Your task to perform on an android device: Open notification settings Image 0: 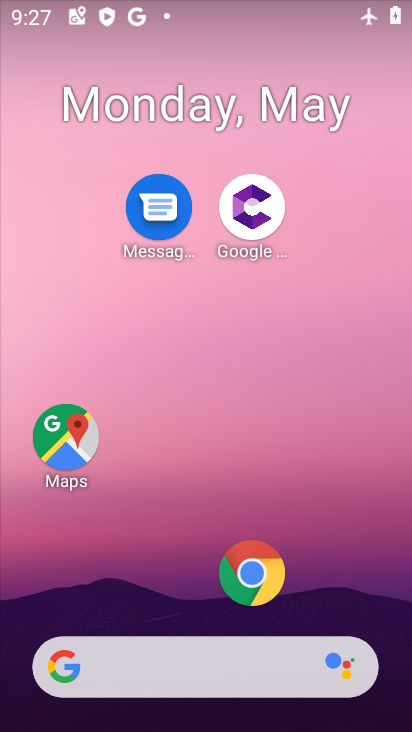
Step 0: drag from (211, 692) to (250, 143)
Your task to perform on an android device: Open notification settings Image 1: 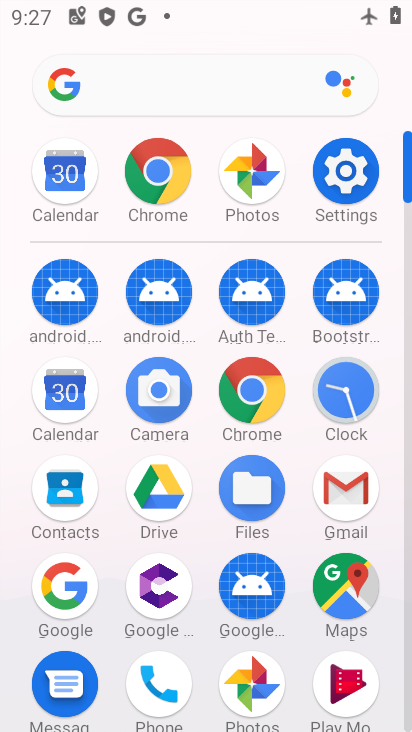
Step 1: click (364, 184)
Your task to perform on an android device: Open notification settings Image 2: 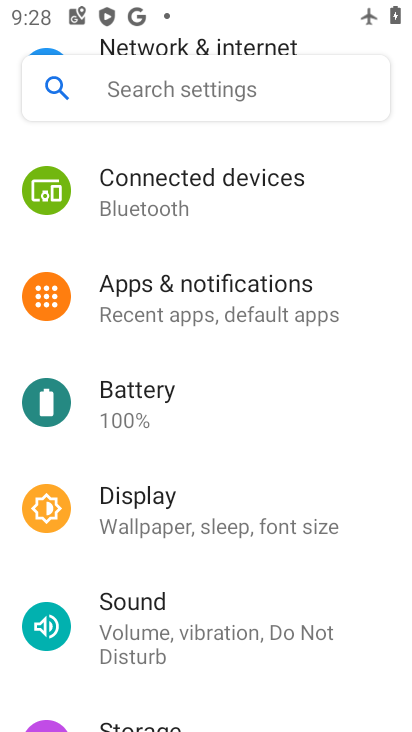
Step 2: click (212, 341)
Your task to perform on an android device: Open notification settings Image 3: 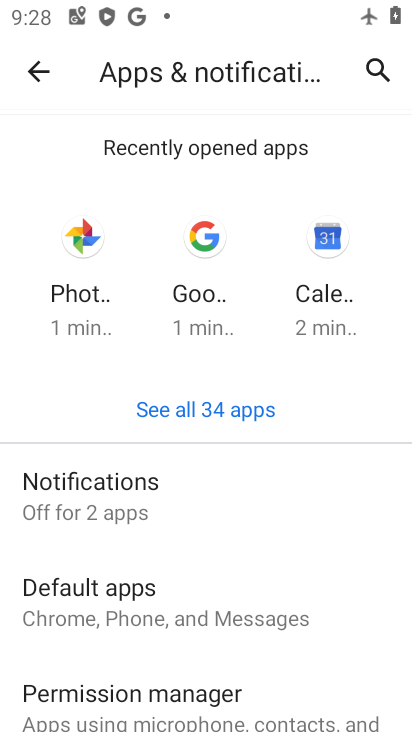
Step 3: click (159, 491)
Your task to perform on an android device: Open notification settings Image 4: 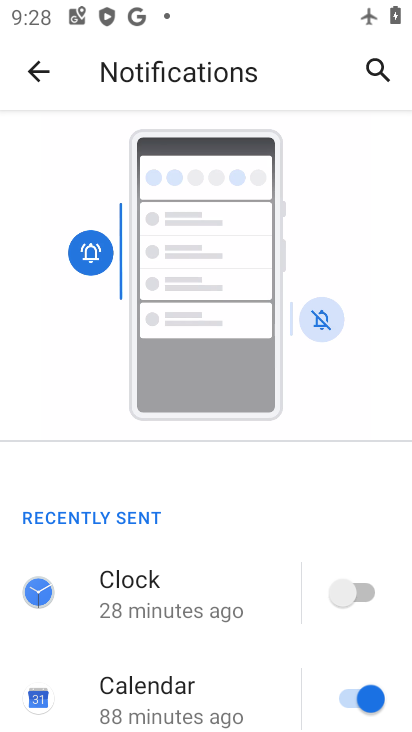
Step 4: task complete